Your task to perform on an android device: Check the weather Image 0: 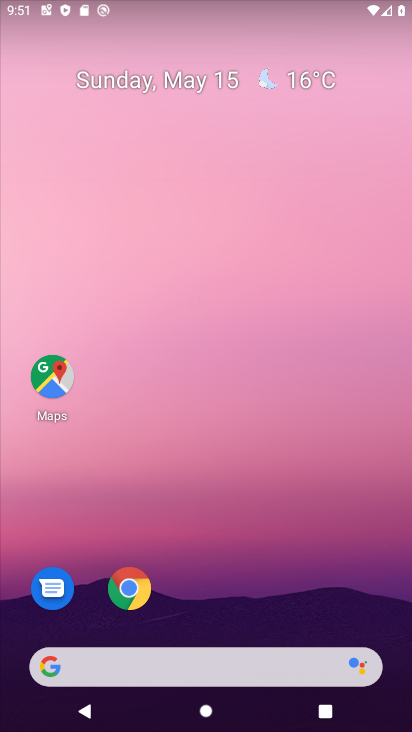
Step 0: click (224, 674)
Your task to perform on an android device: Check the weather Image 1: 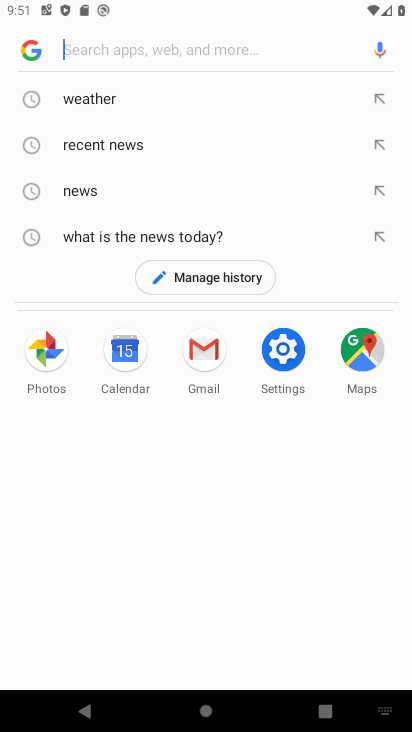
Step 1: click (80, 105)
Your task to perform on an android device: Check the weather Image 2: 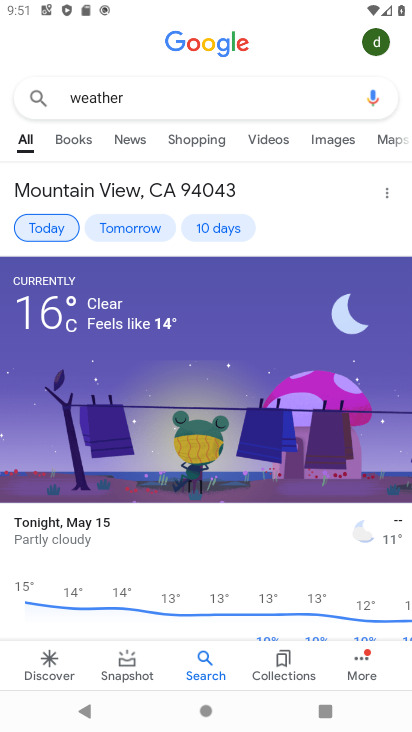
Step 2: task complete